Your task to perform on an android device: Go to Reddit.com Image 0: 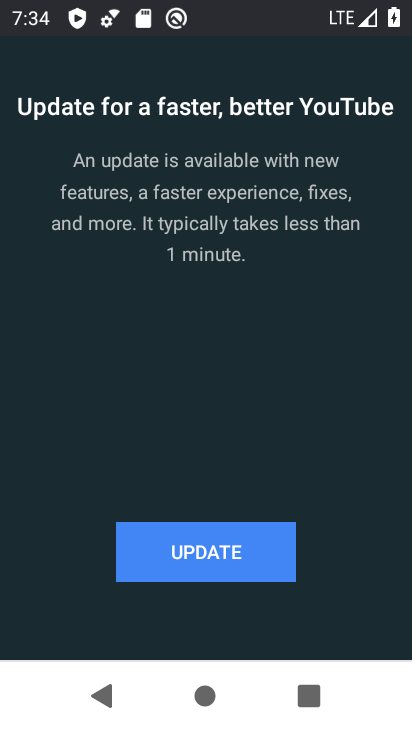
Step 0: press home button
Your task to perform on an android device: Go to Reddit.com Image 1: 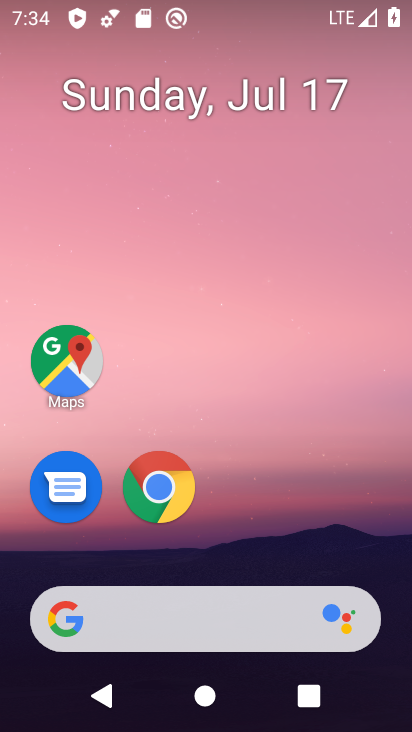
Step 1: drag from (317, 520) to (364, 56)
Your task to perform on an android device: Go to Reddit.com Image 2: 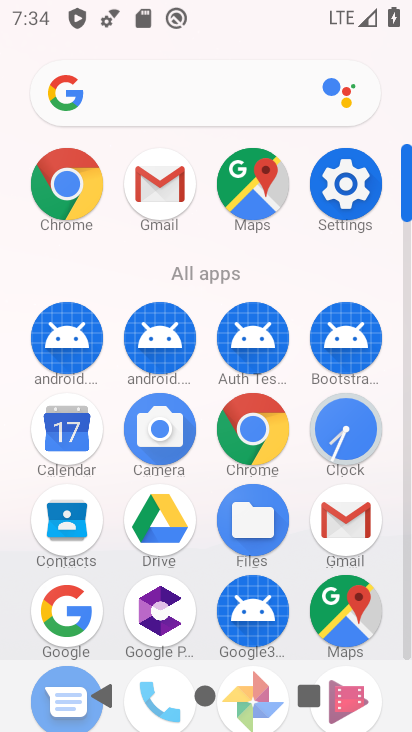
Step 2: click (260, 420)
Your task to perform on an android device: Go to Reddit.com Image 3: 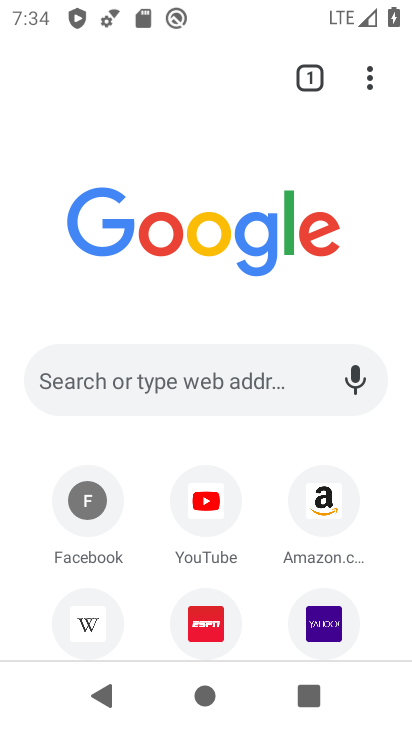
Step 3: click (270, 385)
Your task to perform on an android device: Go to Reddit.com Image 4: 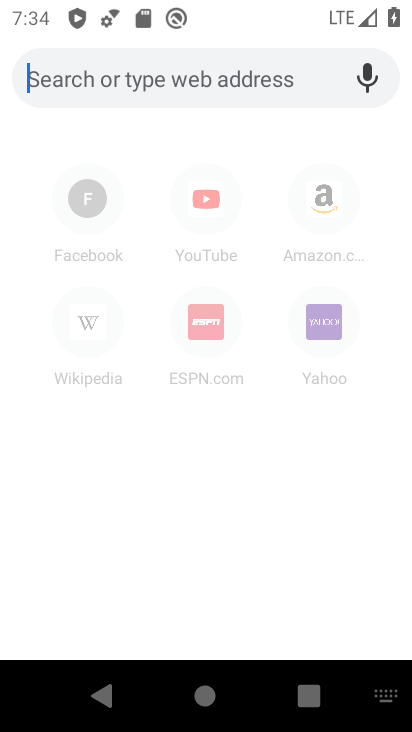
Step 4: type "reddit.com"
Your task to perform on an android device: Go to Reddit.com Image 5: 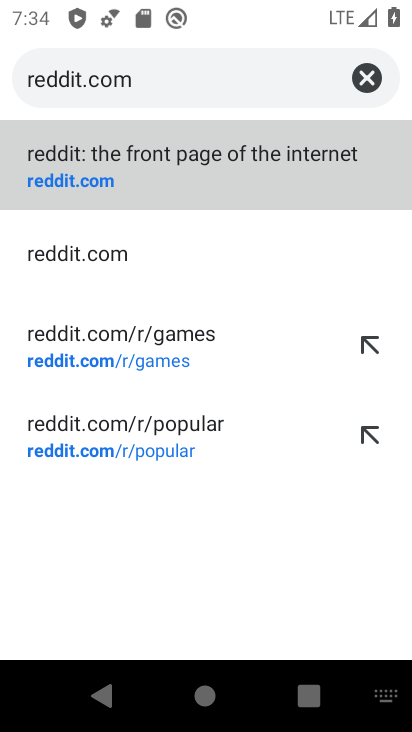
Step 5: click (303, 171)
Your task to perform on an android device: Go to Reddit.com Image 6: 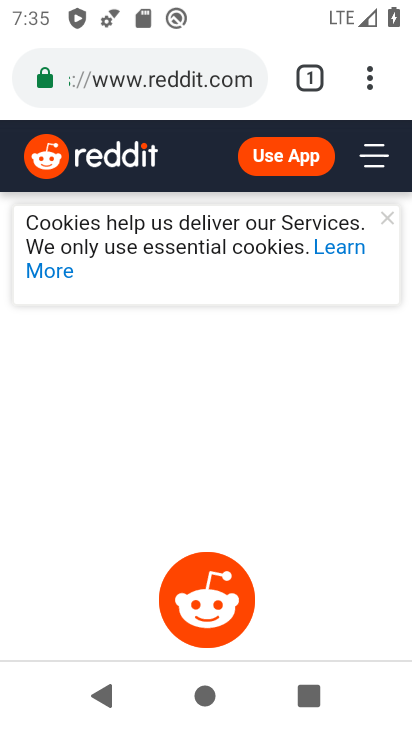
Step 6: task complete